Your task to perform on an android device: Search for pizza restaurants on Maps Image 0: 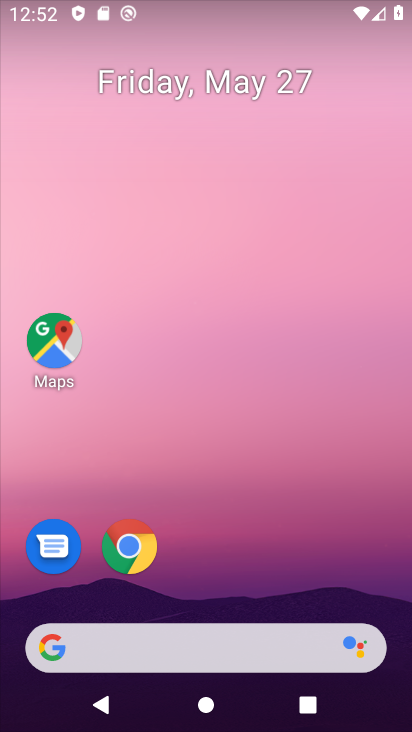
Step 0: drag from (295, 654) to (261, 104)
Your task to perform on an android device: Search for pizza restaurants on Maps Image 1: 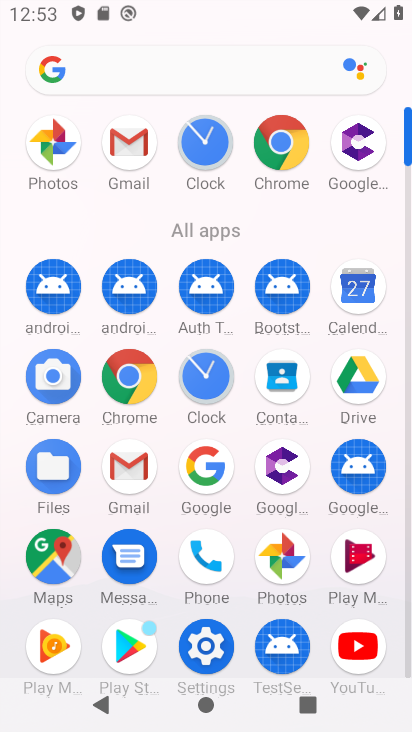
Step 1: click (63, 555)
Your task to perform on an android device: Search for pizza restaurants on Maps Image 2: 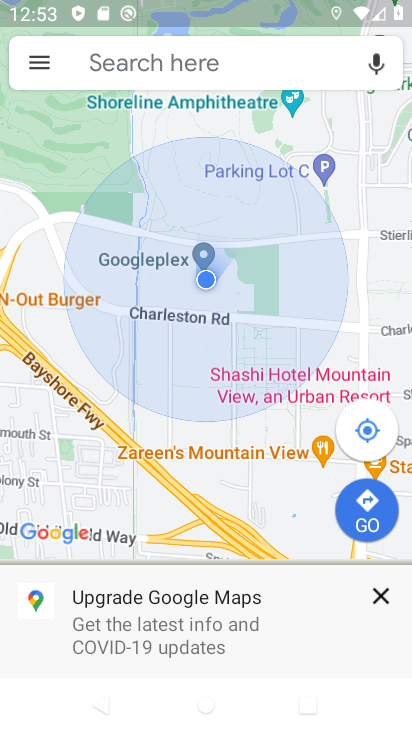
Step 2: click (159, 70)
Your task to perform on an android device: Search for pizza restaurants on Maps Image 3: 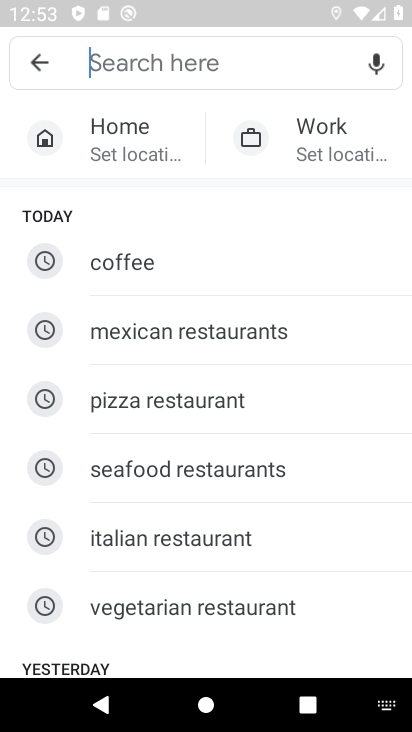
Step 3: click (117, 406)
Your task to perform on an android device: Search for pizza restaurants on Maps Image 4: 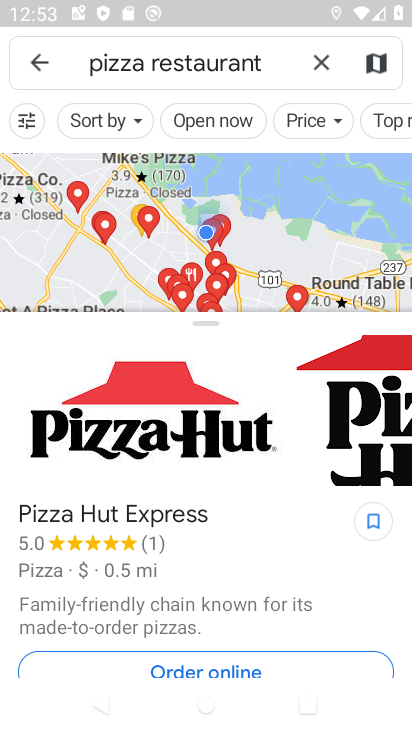
Step 4: click (128, 273)
Your task to perform on an android device: Search for pizza restaurants on Maps Image 5: 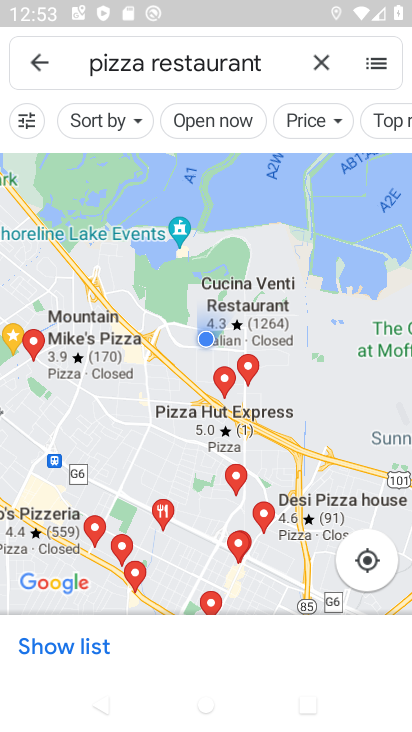
Step 5: task complete